Your task to perform on an android device: Go to ESPN.com Image 0: 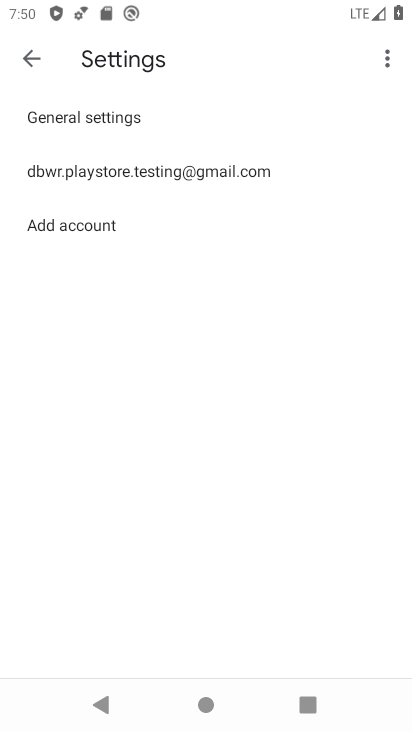
Step 0: press back button
Your task to perform on an android device: Go to ESPN.com Image 1: 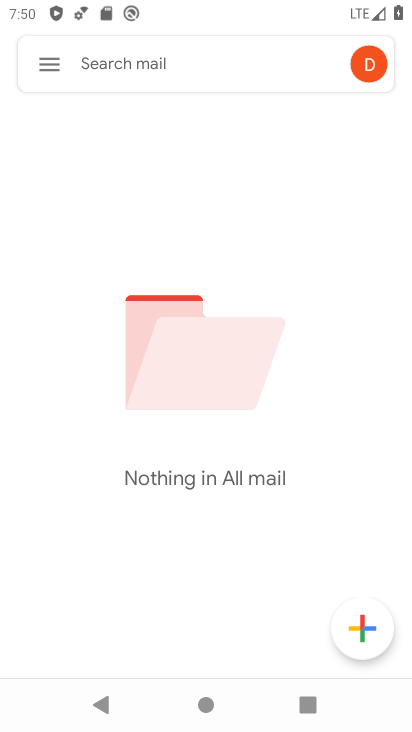
Step 1: press back button
Your task to perform on an android device: Go to ESPN.com Image 2: 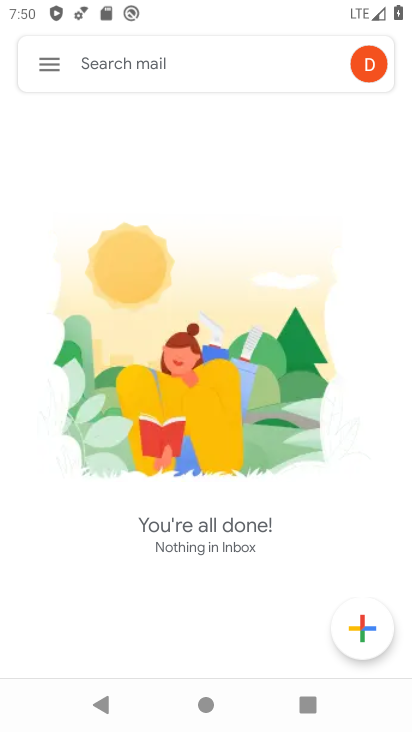
Step 2: press back button
Your task to perform on an android device: Go to ESPN.com Image 3: 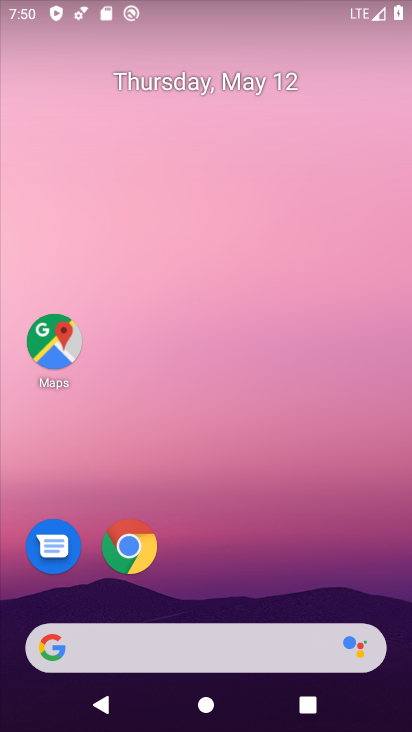
Step 3: click (142, 536)
Your task to perform on an android device: Go to ESPN.com Image 4: 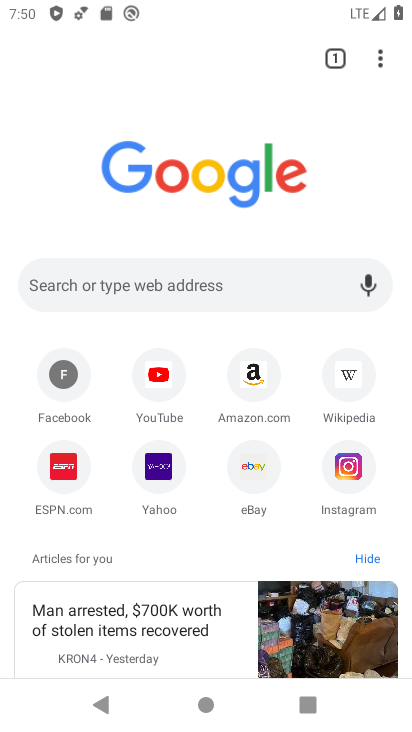
Step 4: click (73, 475)
Your task to perform on an android device: Go to ESPN.com Image 5: 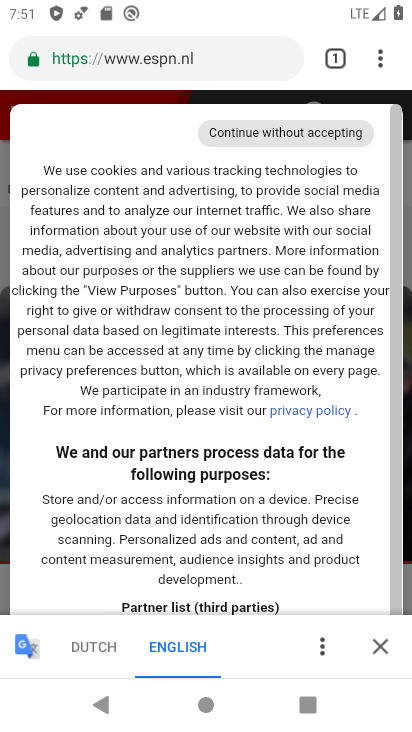
Step 5: task complete